Your task to perform on an android device: Is it going to rain today? Image 0: 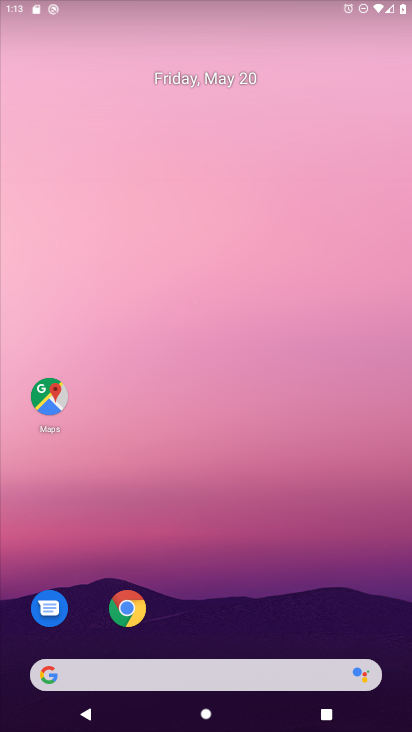
Step 0: press home button
Your task to perform on an android device: Is it going to rain today? Image 1: 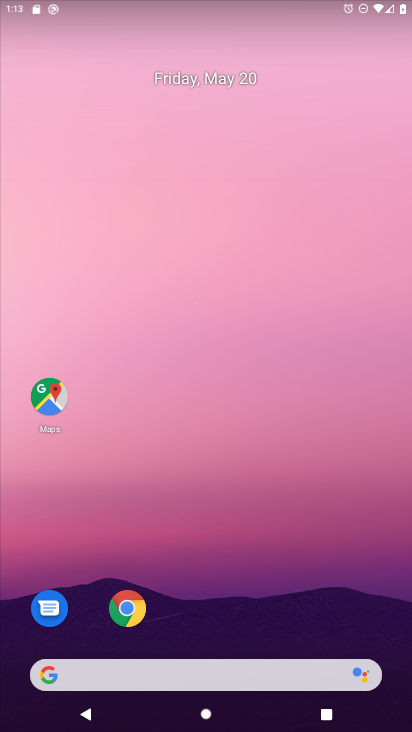
Step 1: click (135, 615)
Your task to perform on an android device: Is it going to rain today? Image 2: 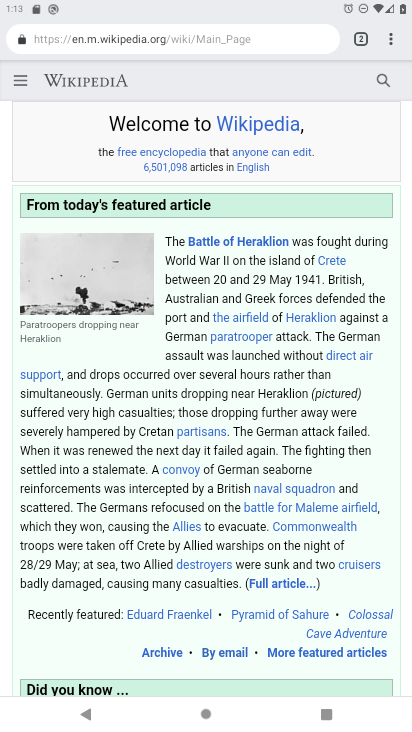
Step 2: click (287, 42)
Your task to perform on an android device: Is it going to rain today? Image 3: 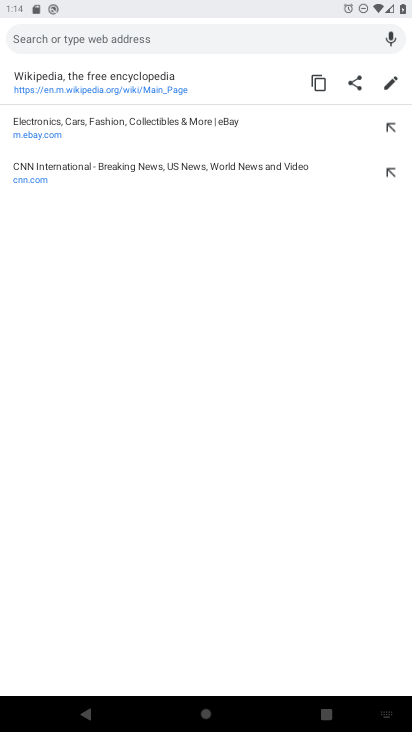
Step 3: type "Is it going to rain today?"
Your task to perform on an android device: Is it going to rain today? Image 4: 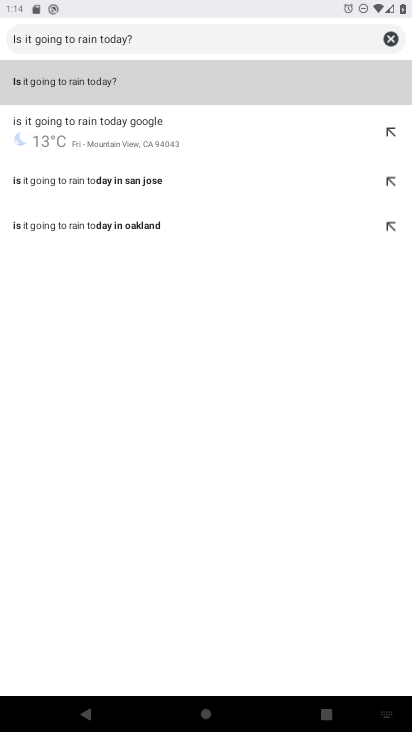
Step 4: click (252, 80)
Your task to perform on an android device: Is it going to rain today? Image 5: 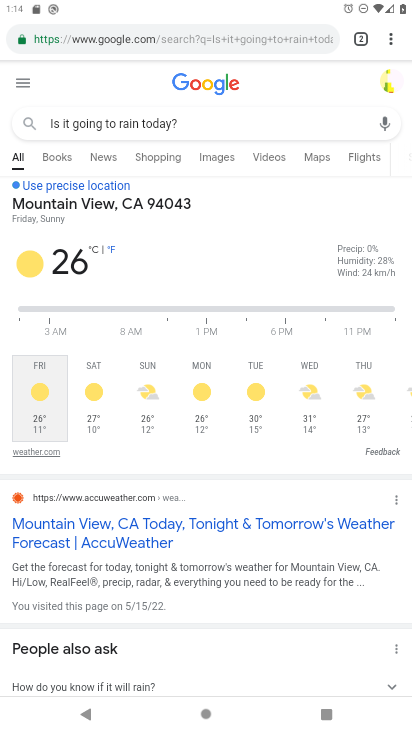
Step 5: task complete